Your task to perform on an android device: toggle pop-ups in chrome Image 0: 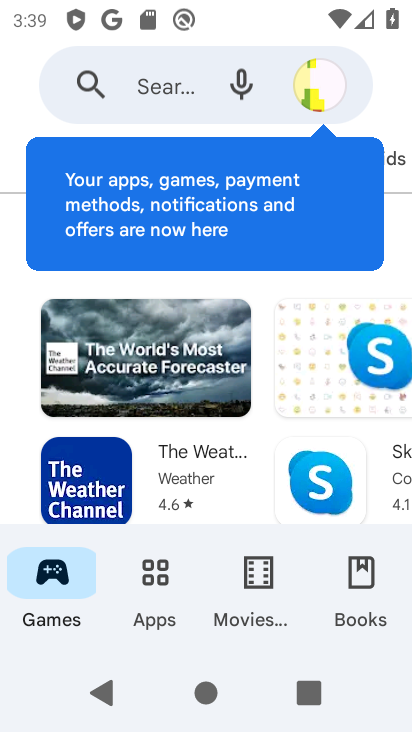
Step 0: press home button
Your task to perform on an android device: toggle pop-ups in chrome Image 1: 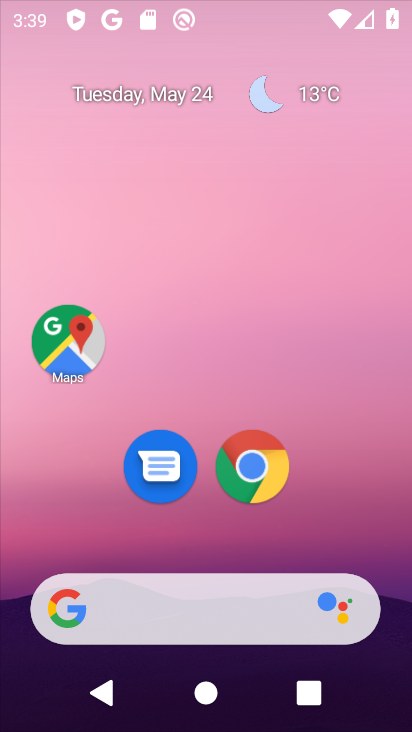
Step 1: drag from (350, 541) to (318, 131)
Your task to perform on an android device: toggle pop-ups in chrome Image 2: 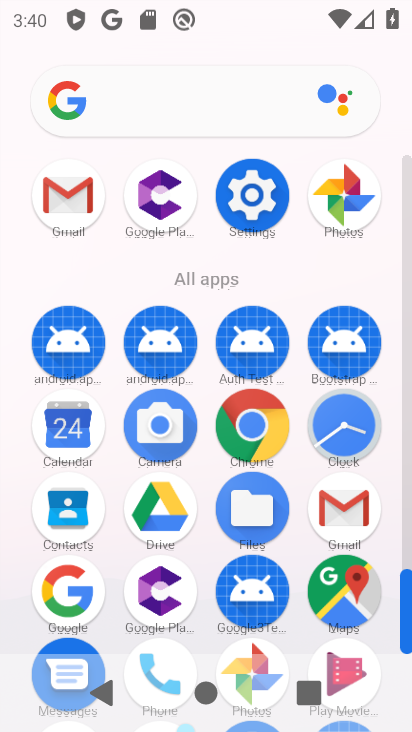
Step 2: click (255, 432)
Your task to perform on an android device: toggle pop-ups in chrome Image 3: 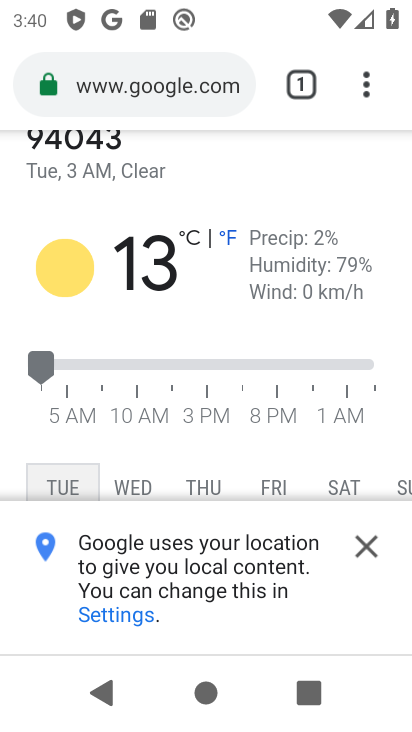
Step 3: click (361, 85)
Your task to perform on an android device: toggle pop-ups in chrome Image 4: 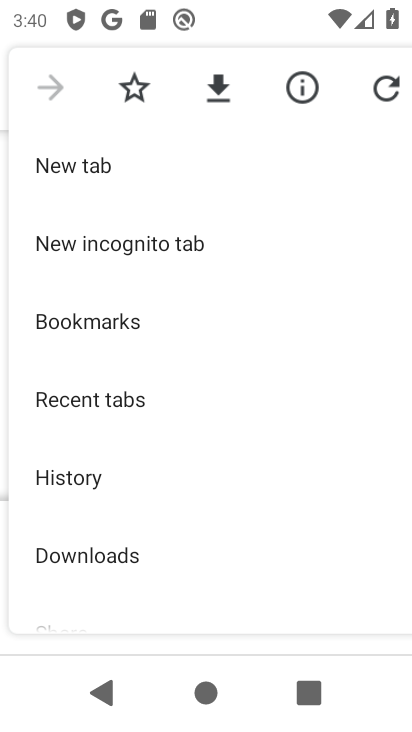
Step 4: drag from (157, 530) to (181, 147)
Your task to perform on an android device: toggle pop-ups in chrome Image 5: 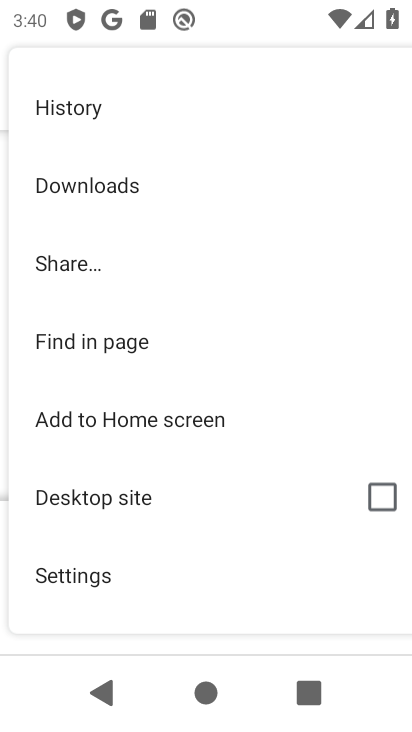
Step 5: drag from (118, 538) to (170, 161)
Your task to perform on an android device: toggle pop-ups in chrome Image 6: 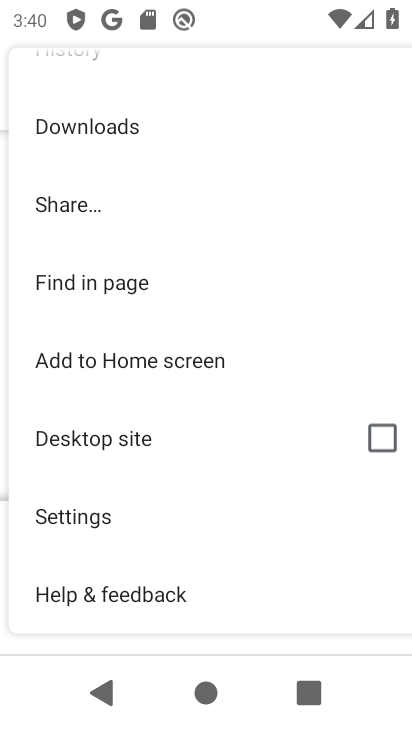
Step 6: click (92, 509)
Your task to perform on an android device: toggle pop-ups in chrome Image 7: 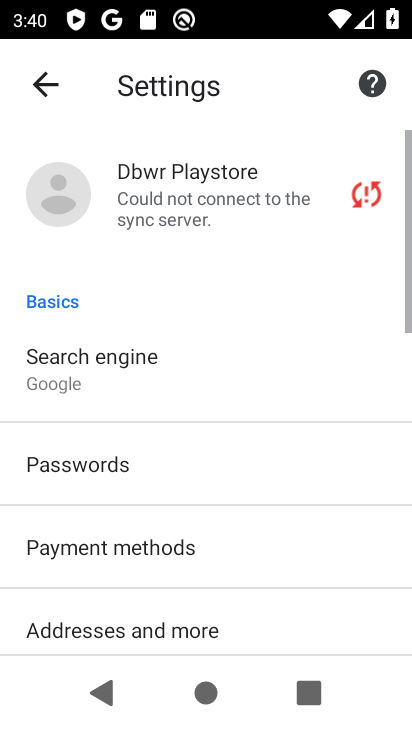
Step 7: drag from (203, 544) to (233, 159)
Your task to perform on an android device: toggle pop-ups in chrome Image 8: 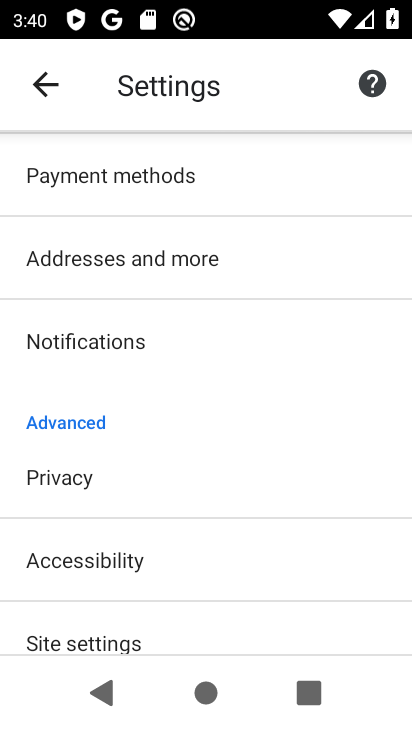
Step 8: drag from (170, 399) to (228, 139)
Your task to perform on an android device: toggle pop-ups in chrome Image 9: 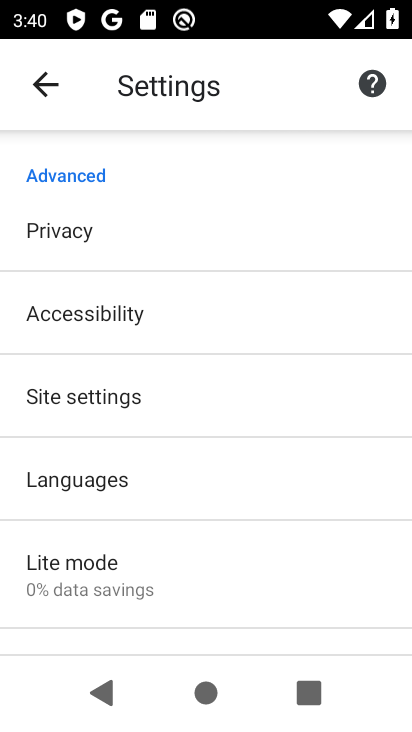
Step 9: click (105, 387)
Your task to perform on an android device: toggle pop-ups in chrome Image 10: 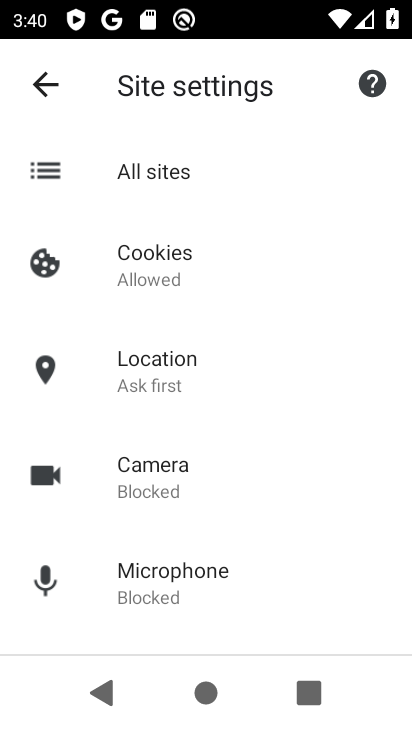
Step 10: drag from (224, 563) to (264, 193)
Your task to perform on an android device: toggle pop-ups in chrome Image 11: 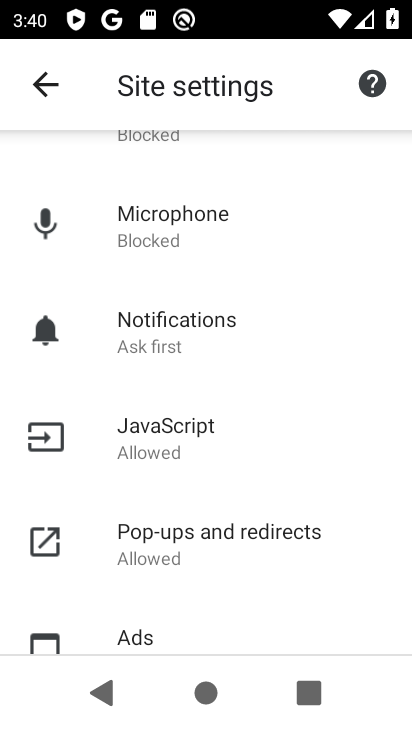
Step 11: click (219, 531)
Your task to perform on an android device: toggle pop-ups in chrome Image 12: 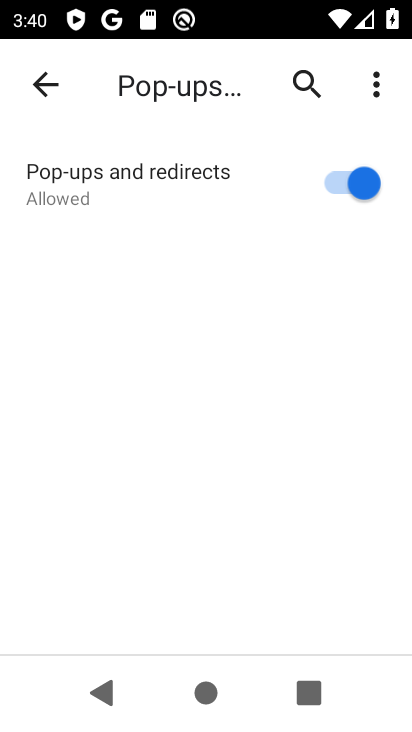
Step 12: click (363, 168)
Your task to perform on an android device: toggle pop-ups in chrome Image 13: 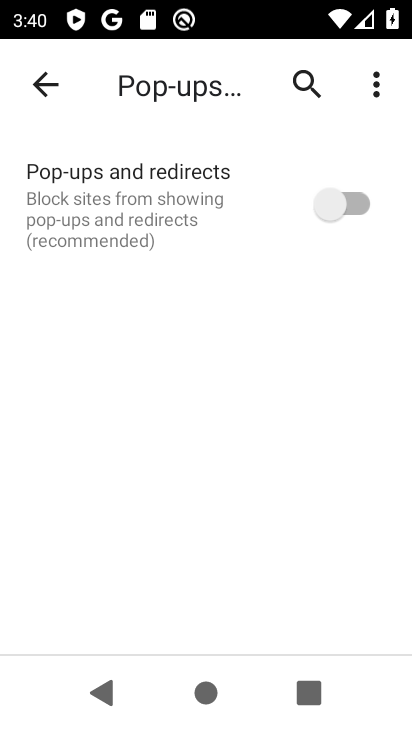
Step 13: task complete